Your task to perform on an android device: turn smart compose on in the gmail app Image 0: 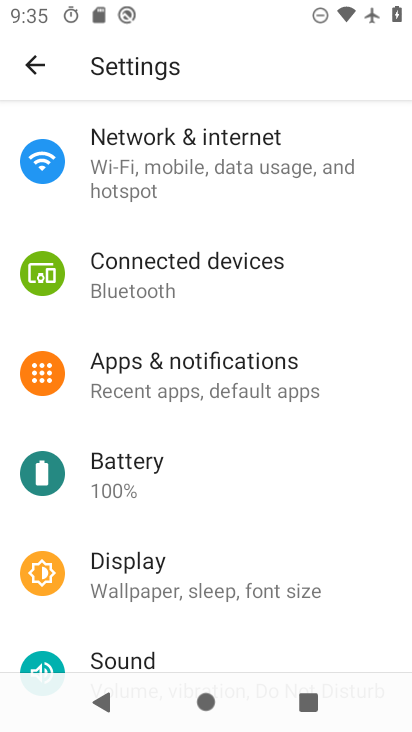
Step 0: press home button
Your task to perform on an android device: turn smart compose on in the gmail app Image 1: 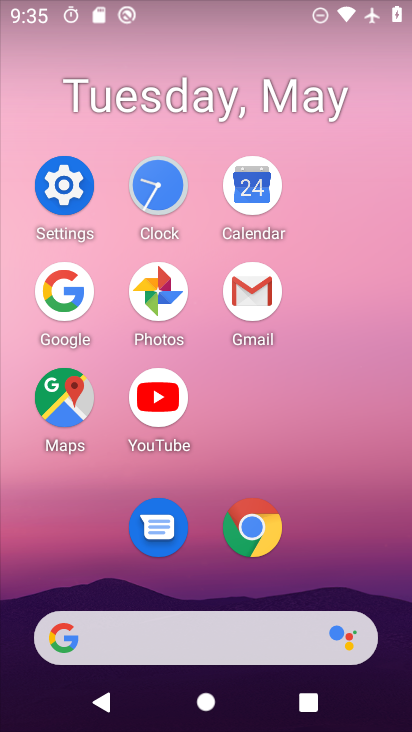
Step 1: click (242, 305)
Your task to perform on an android device: turn smart compose on in the gmail app Image 2: 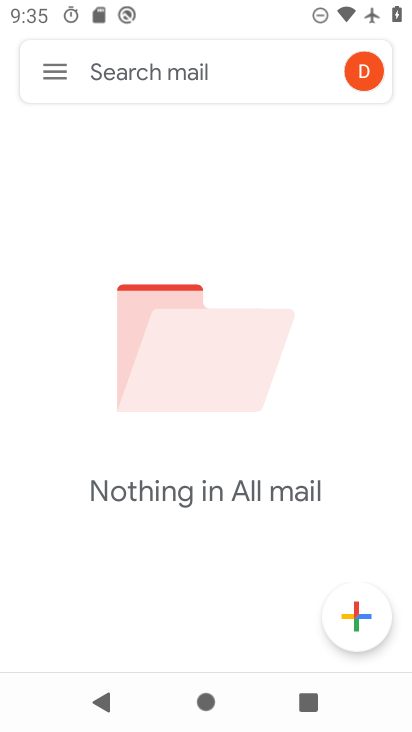
Step 2: click (39, 72)
Your task to perform on an android device: turn smart compose on in the gmail app Image 3: 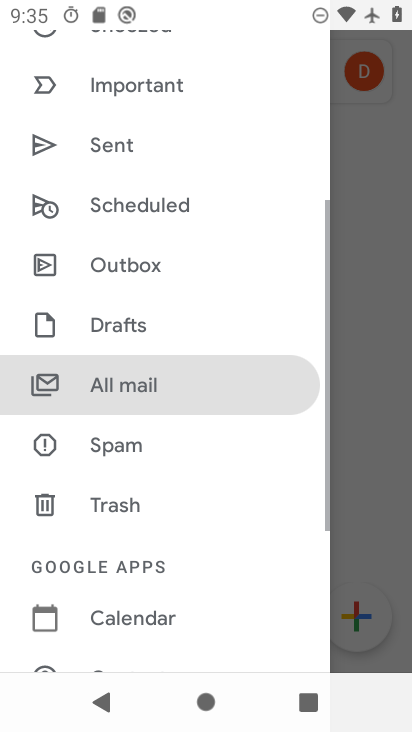
Step 3: drag from (198, 554) to (248, 173)
Your task to perform on an android device: turn smart compose on in the gmail app Image 4: 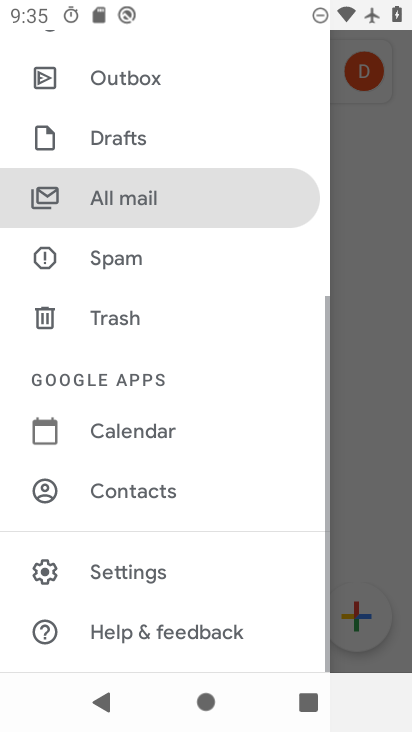
Step 4: click (193, 537)
Your task to perform on an android device: turn smart compose on in the gmail app Image 5: 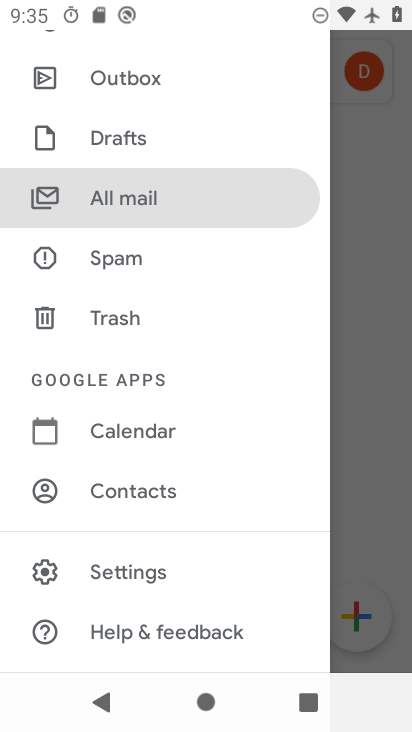
Step 5: click (166, 567)
Your task to perform on an android device: turn smart compose on in the gmail app Image 6: 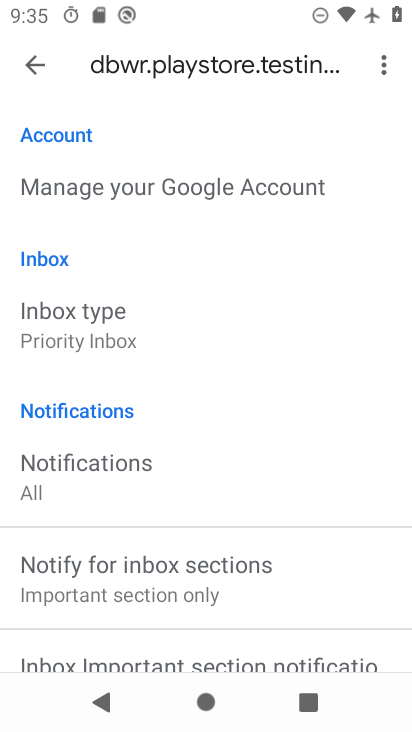
Step 6: task complete